Your task to perform on an android device: toggle notifications settings in the gmail app Image 0: 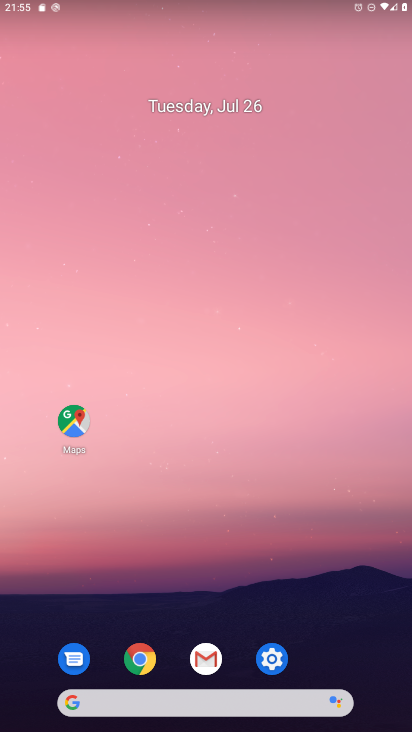
Step 0: click (206, 660)
Your task to perform on an android device: toggle notifications settings in the gmail app Image 1: 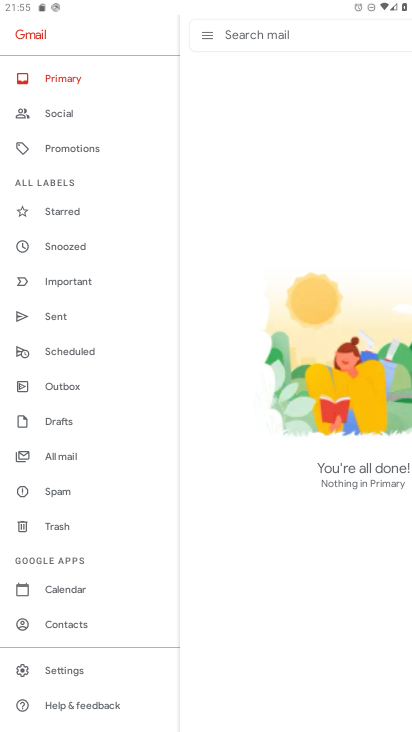
Step 1: click (76, 672)
Your task to perform on an android device: toggle notifications settings in the gmail app Image 2: 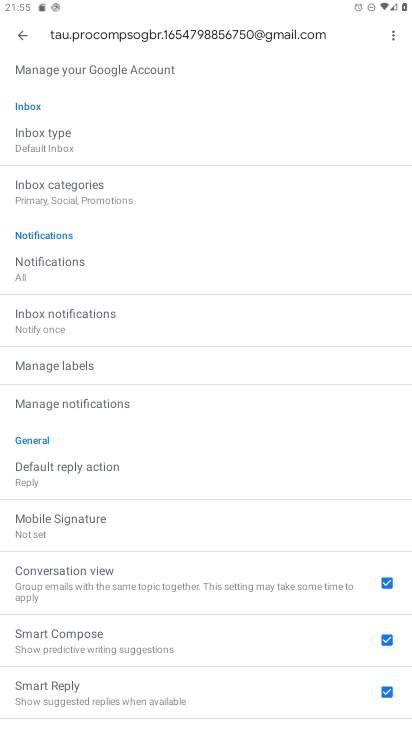
Step 2: click (96, 274)
Your task to perform on an android device: toggle notifications settings in the gmail app Image 3: 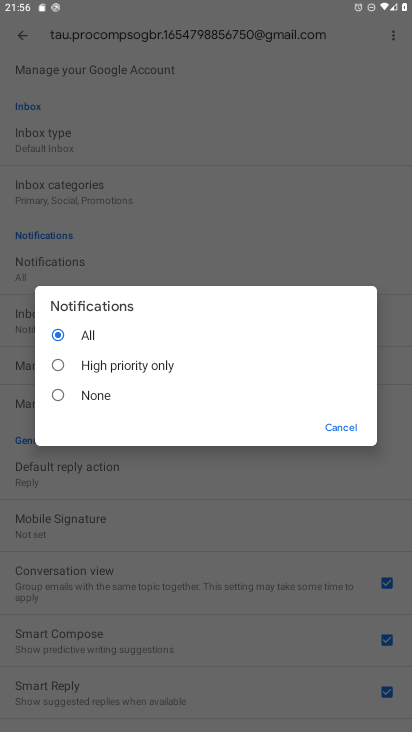
Step 3: task complete